Your task to perform on an android device: Open a new incognito window in Chrome Image 0: 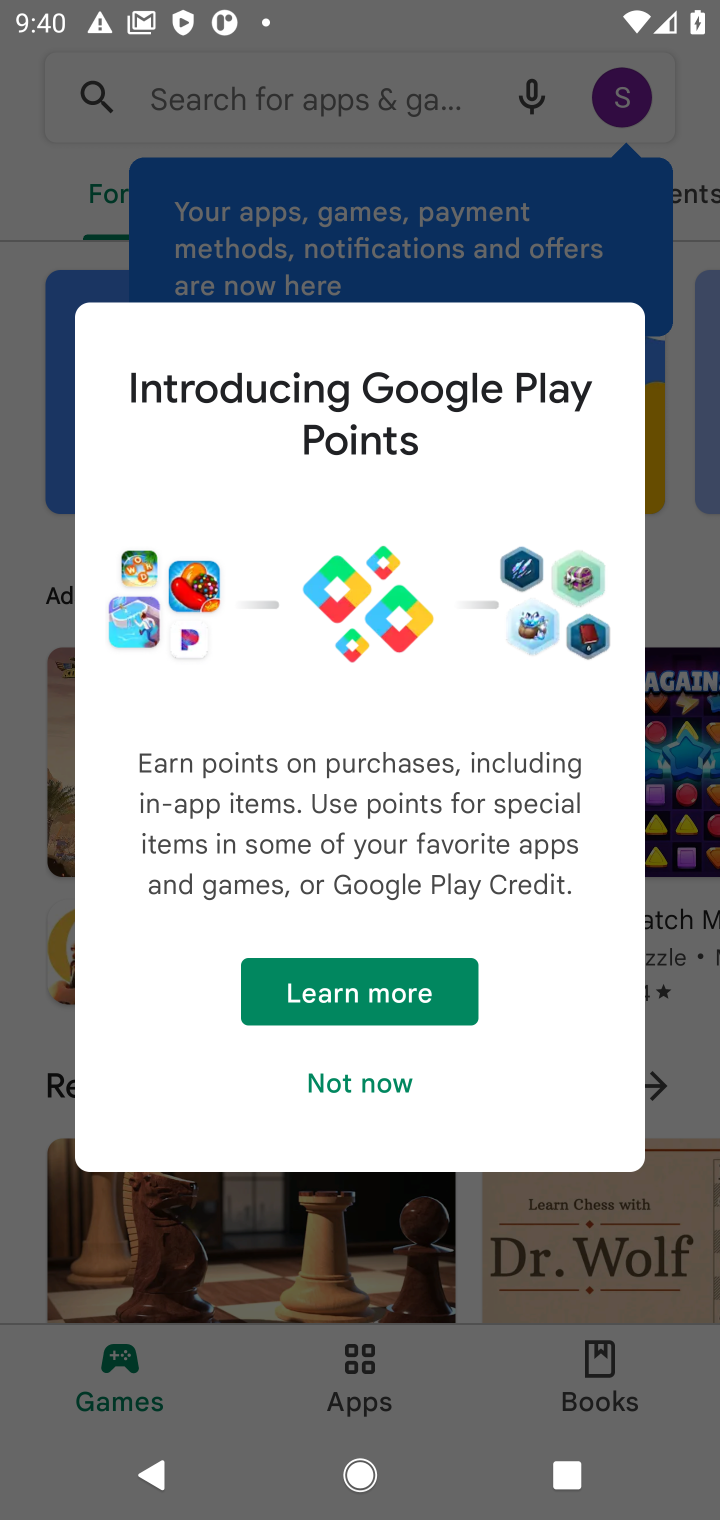
Step 0: click (355, 1087)
Your task to perform on an android device: Open a new incognito window in Chrome Image 1: 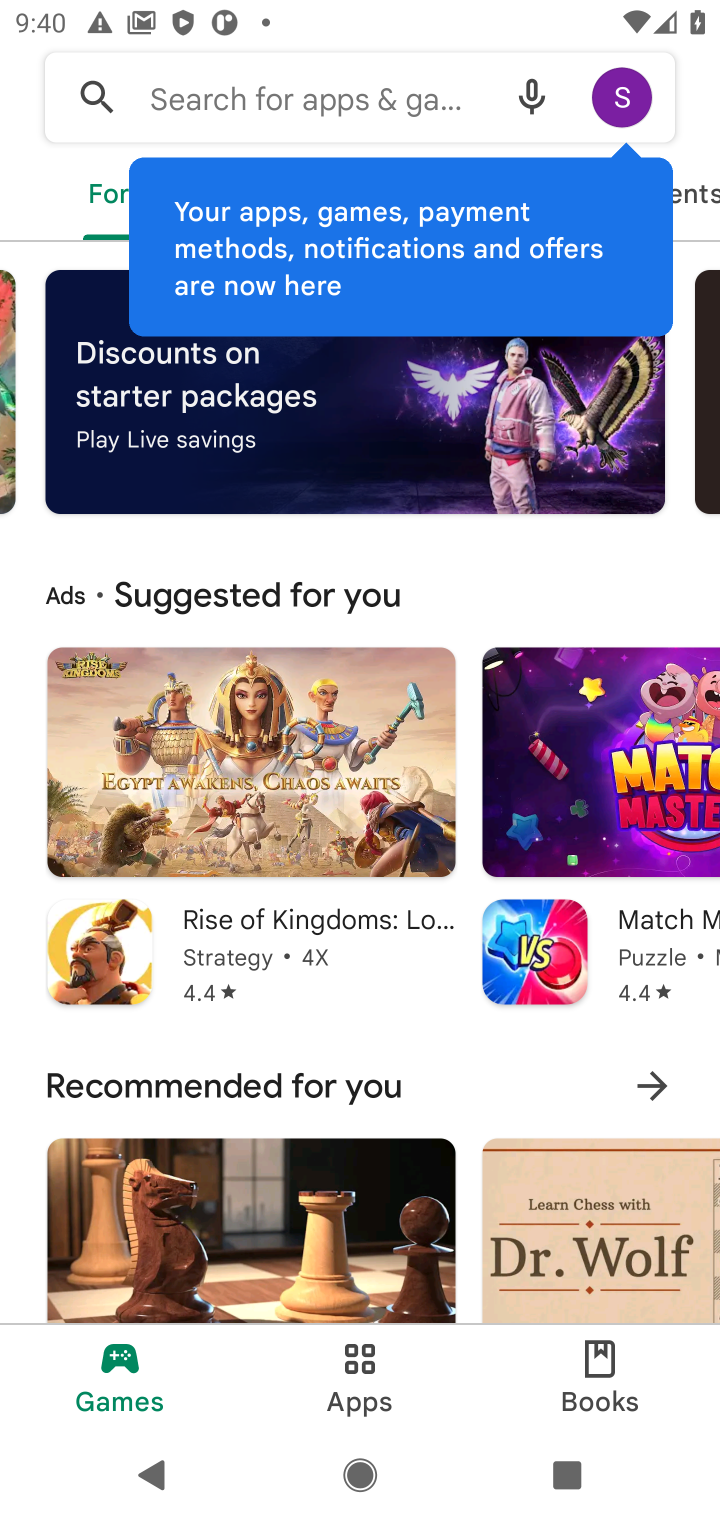
Step 1: press home button
Your task to perform on an android device: Open a new incognito window in Chrome Image 2: 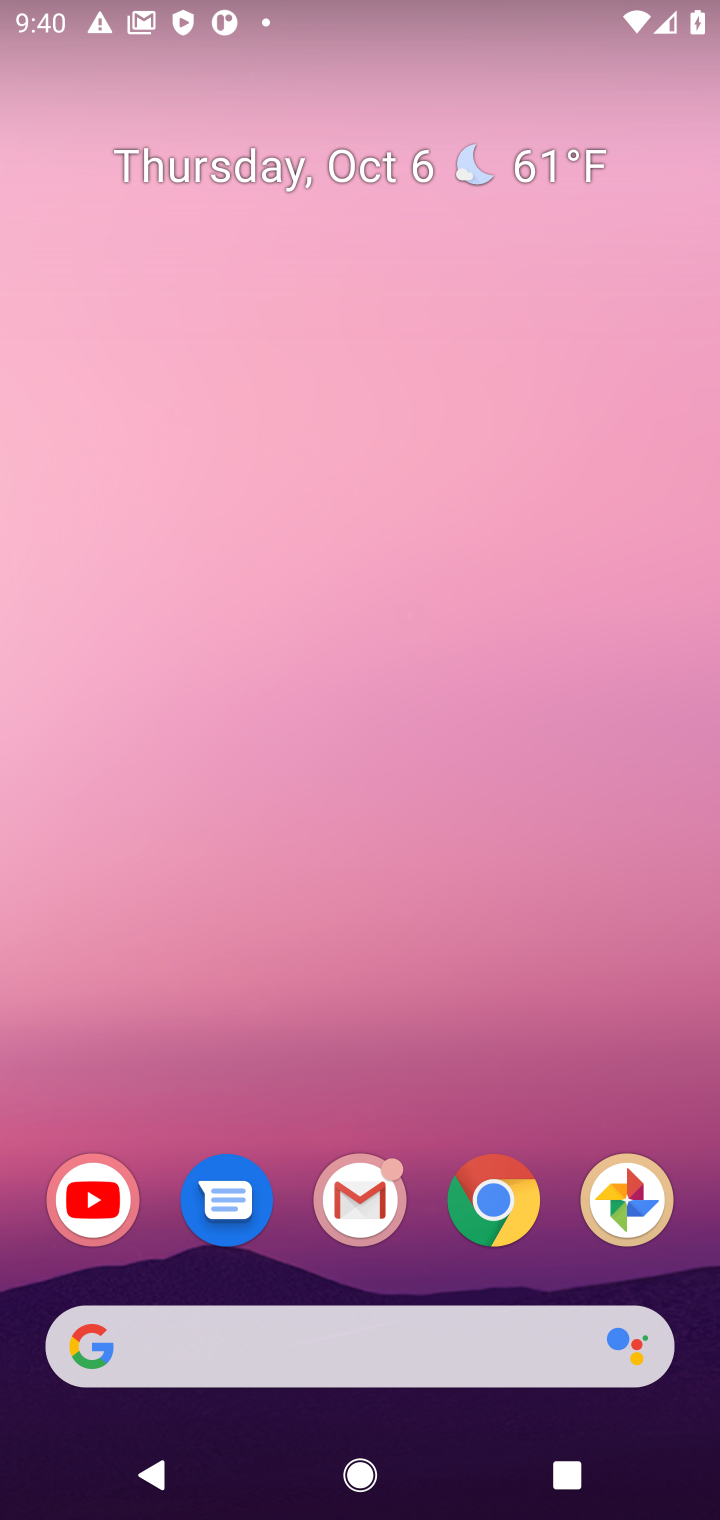
Step 2: click (476, 1211)
Your task to perform on an android device: Open a new incognito window in Chrome Image 3: 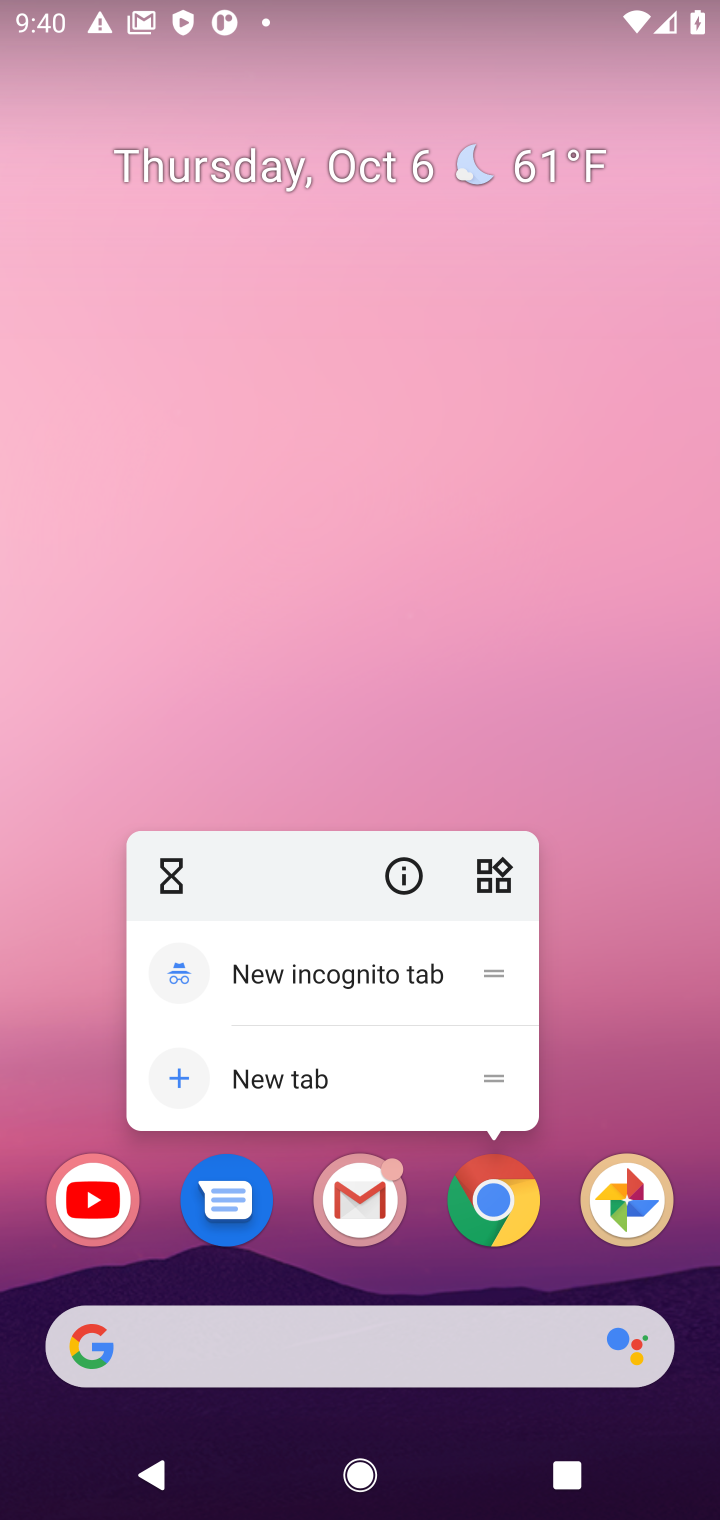
Step 3: click (489, 1200)
Your task to perform on an android device: Open a new incognito window in Chrome Image 4: 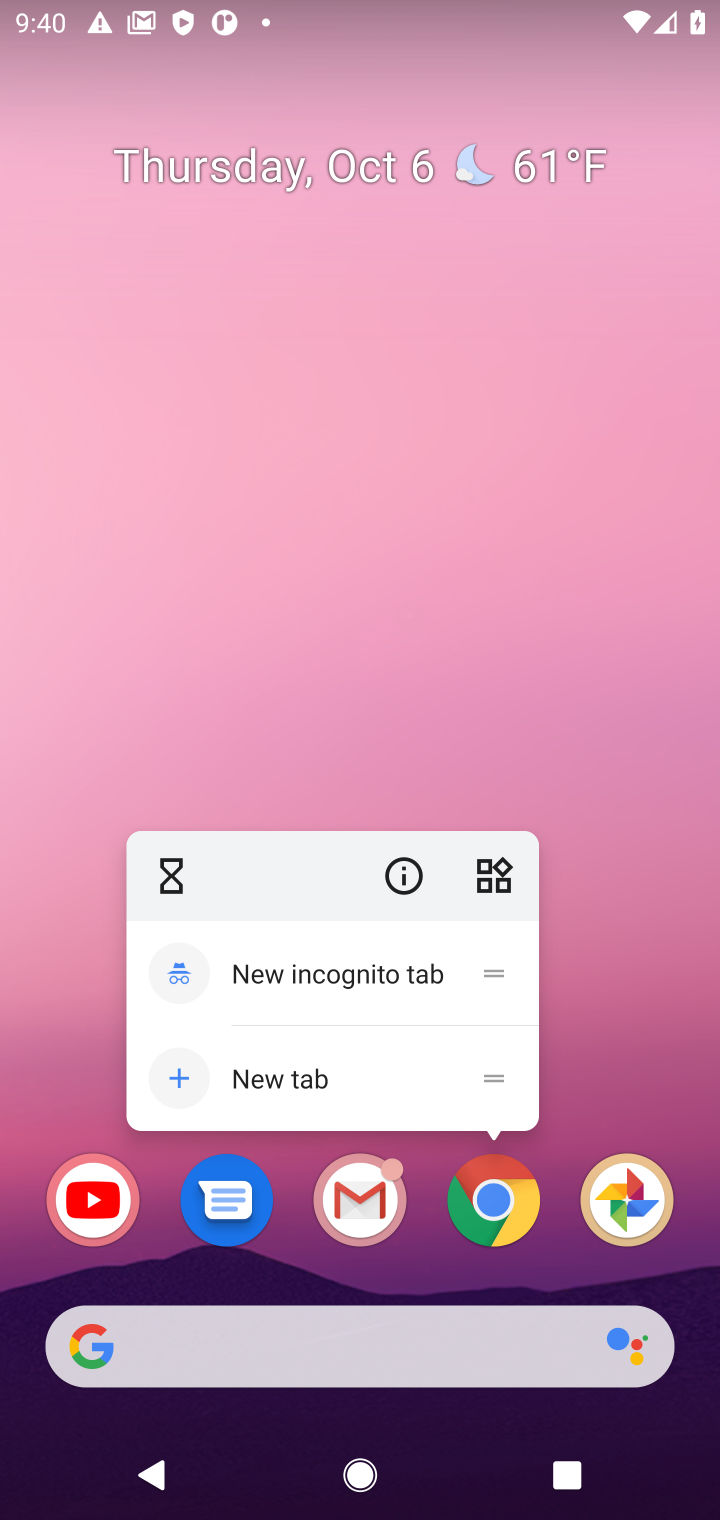
Step 4: click (499, 1213)
Your task to perform on an android device: Open a new incognito window in Chrome Image 5: 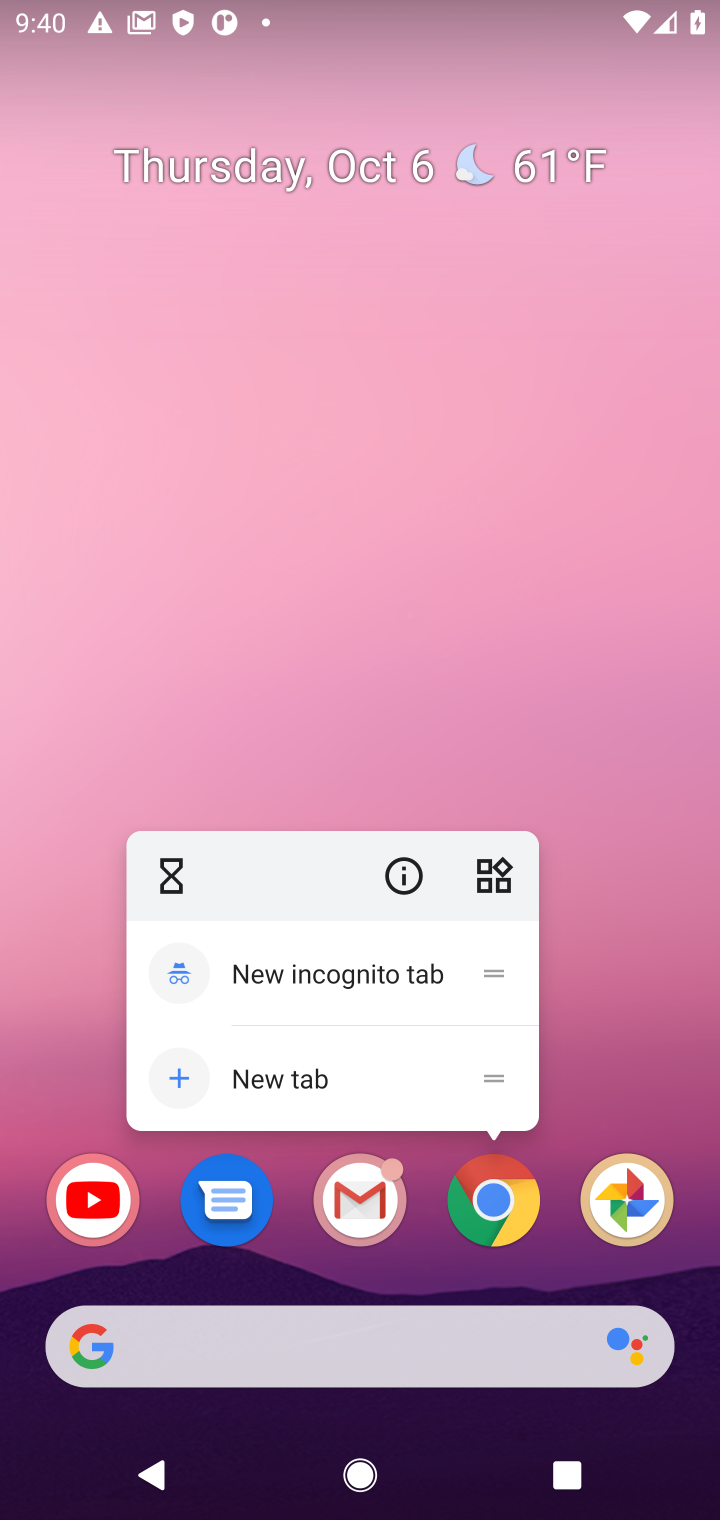
Step 5: click (499, 1213)
Your task to perform on an android device: Open a new incognito window in Chrome Image 6: 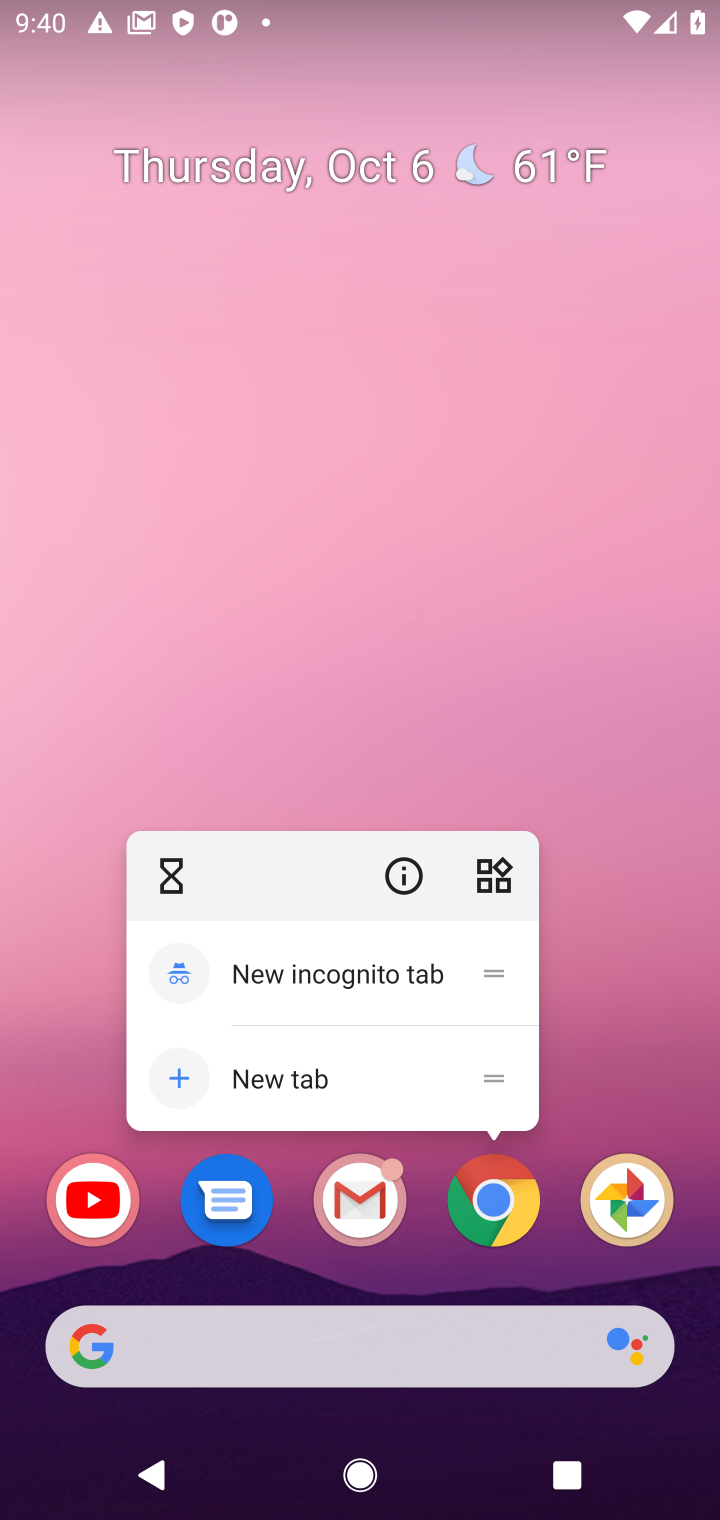
Step 6: click (394, 963)
Your task to perform on an android device: Open a new incognito window in Chrome Image 7: 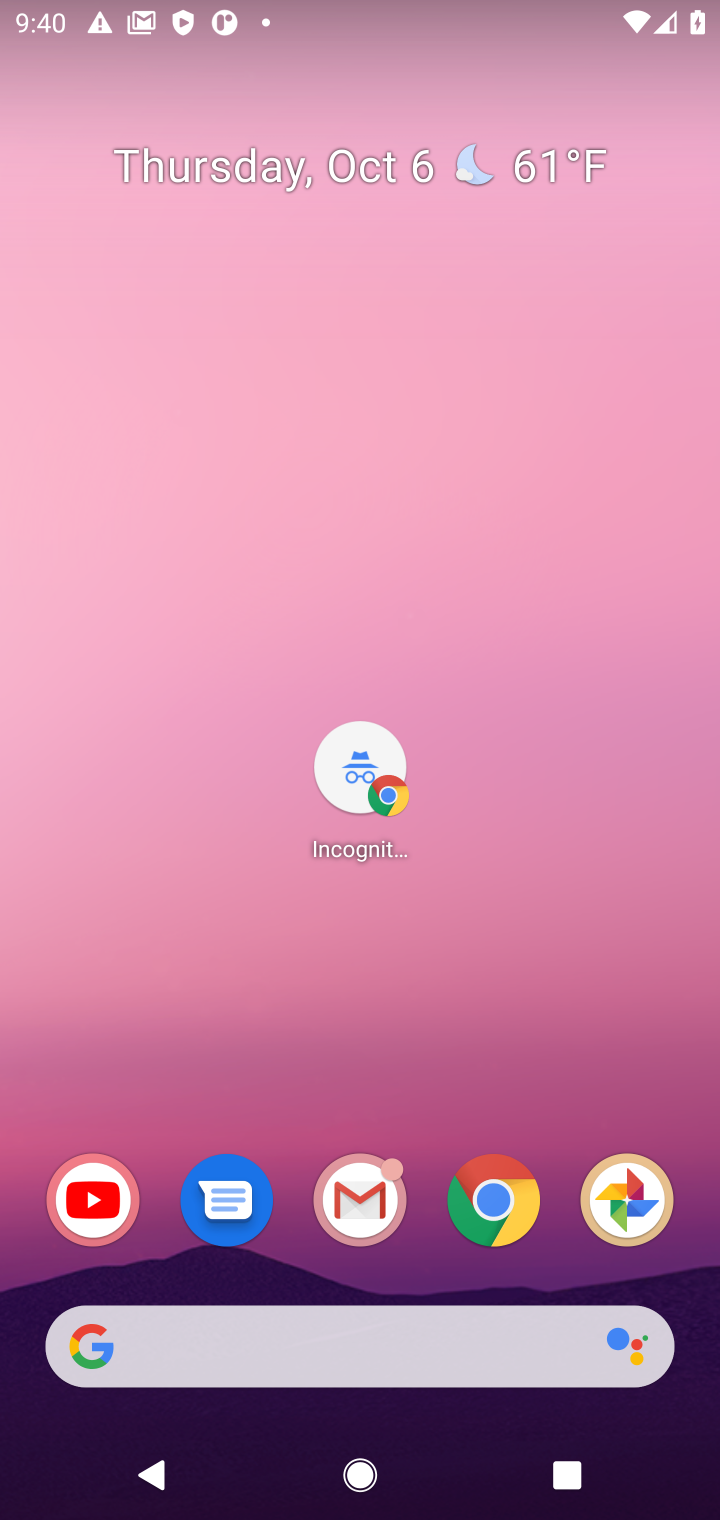
Step 7: task complete